Your task to perform on an android device: Check the settings for the Google Maps app Image 0: 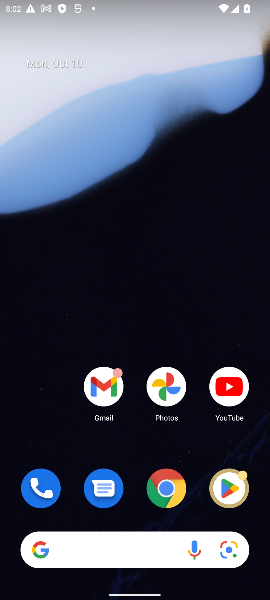
Step 0: click (199, 83)
Your task to perform on an android device: Check the settings for the Google Maps app Image 1: 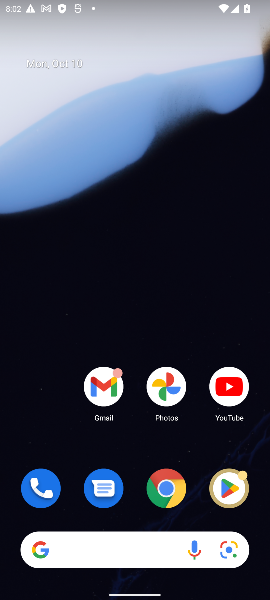
Step 1: drag from (142, 467) to (213, 48)
Your task to perform on an android device: Check the settings for the Google Maps app Image 2: 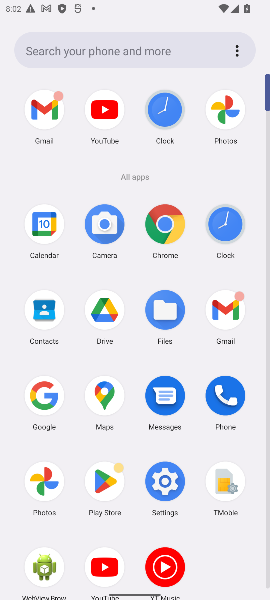
Step 2: click (105, 397)
Your task to perform on an android device: Check the settings for the Google Maps app Image 3: 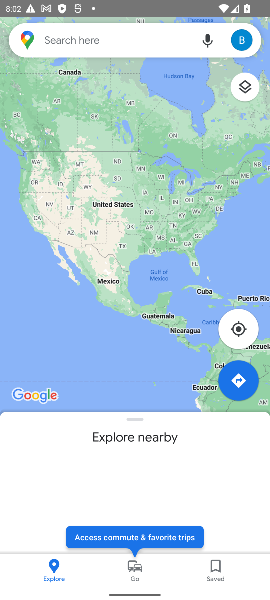
Step 3: click (243, 43)
Your task to perform on an android device: Check the settings for the Google Maps app Image 4: 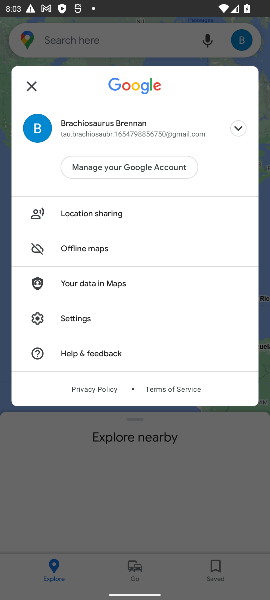
Step 4: click (96, 314)
Your task to perform on an android device: Check the settings for the Google Maps app Image 5: 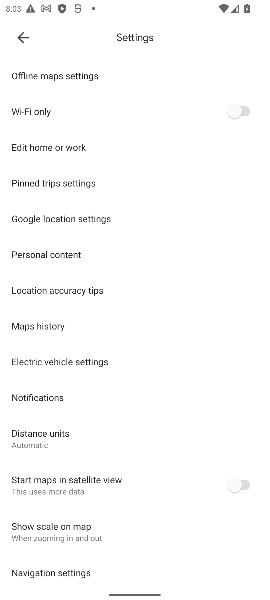
Step 5: task complete